Your task to perform on an android device: turn notification dots on Image 0: 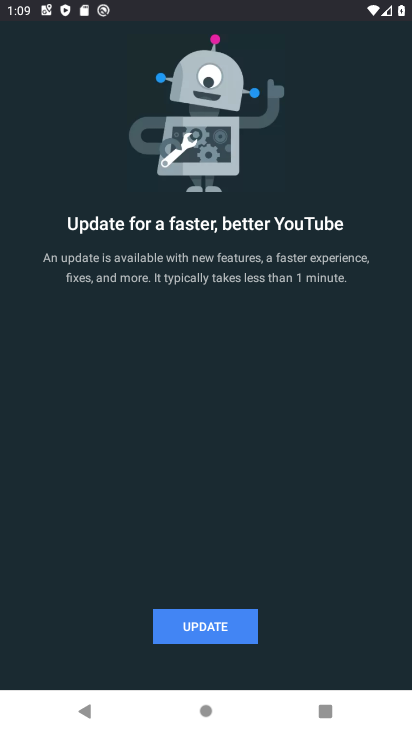
Step 0: press home button
Your task to perform on an android device: turn notification dots on Image 1: 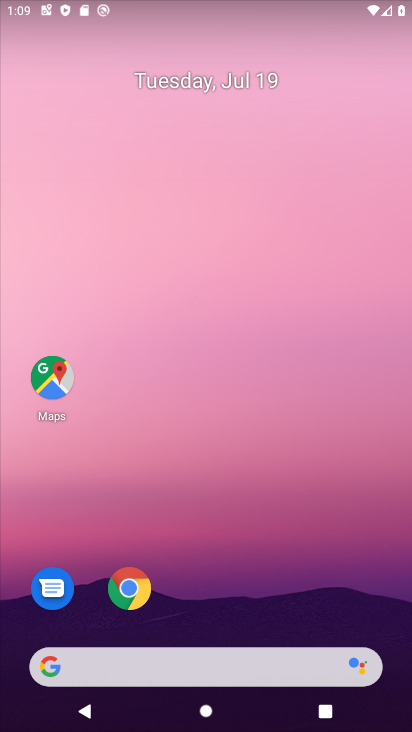
Step 1: drag from (33, 676) to (279, 188)
Your task to perform on an android device: turn notification dots on Image 2: 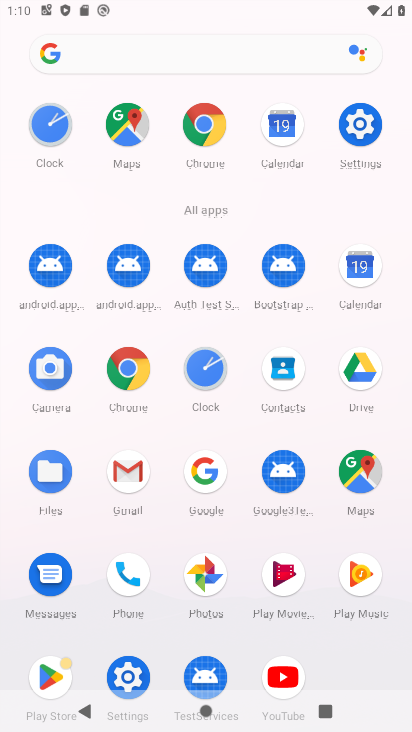
Step 2: click (124, 676)
Your task to perform on an android device: turn notification dots on Image 3: 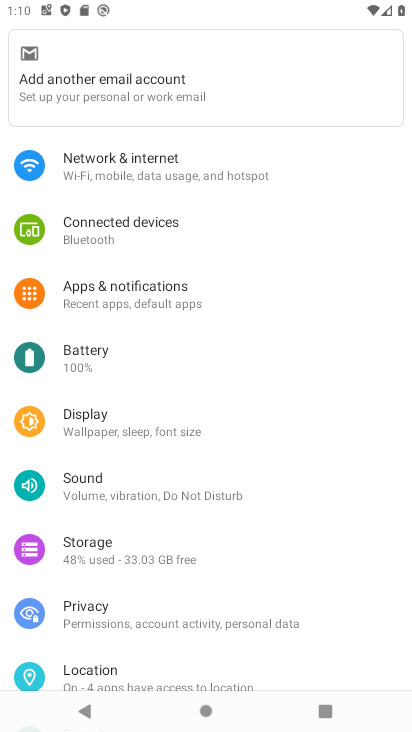
Step 3: click (144, 308)
Your task to perform on an android device: turn notification dots on Image 4: 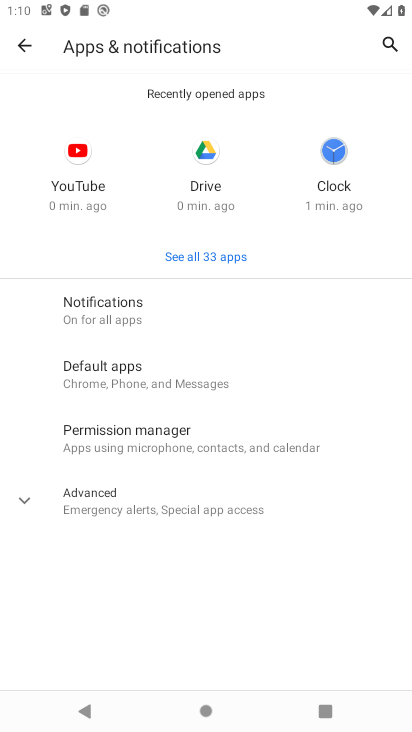
Step 4: click (95, 495)
Your task to perform on an android device: turn notification dots on Image 5: 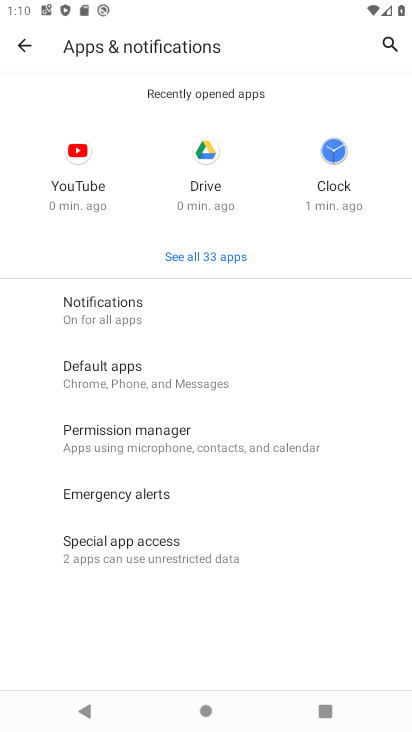
Step 5: click (170, 546)
Your task to perform on an android device: turn notification dots on Image 6: 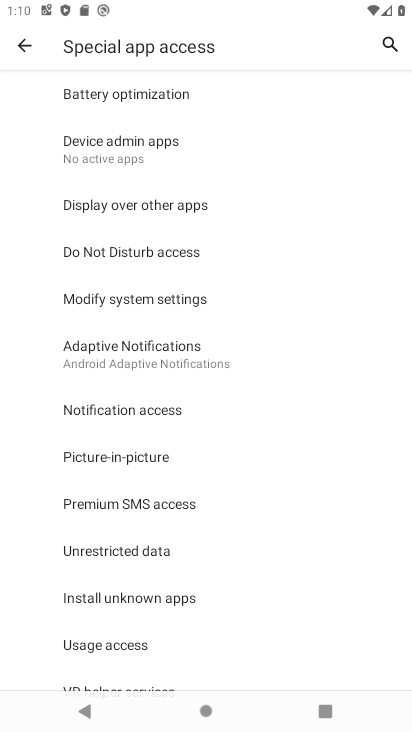
Step 6: click (25, 42)
Your task to perform on an android device: turn notification dots on Image 7: 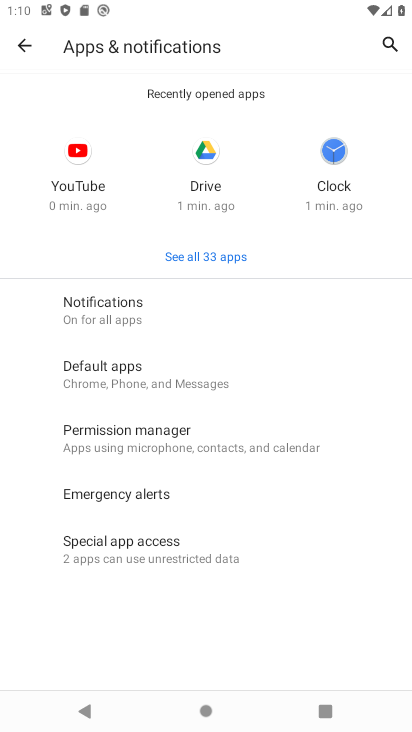
Step 7: click (111, 323)
Your task to perform on an android device: turn notification dots on Image 8: 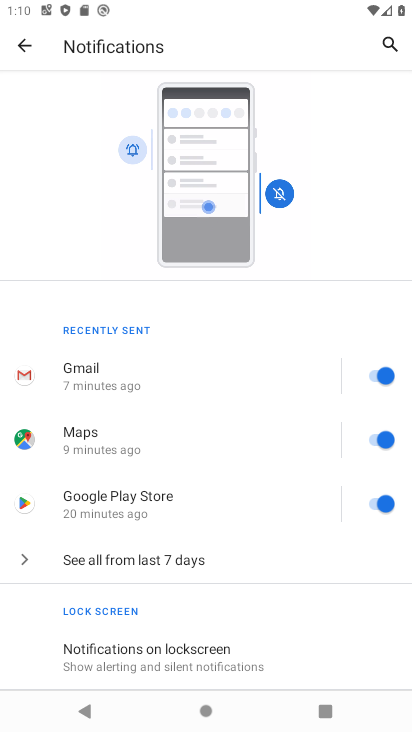
Step 8: drag from (267, 588) to (307, 334)
Your task to perform on an android device: turn notification dots on Image 9: 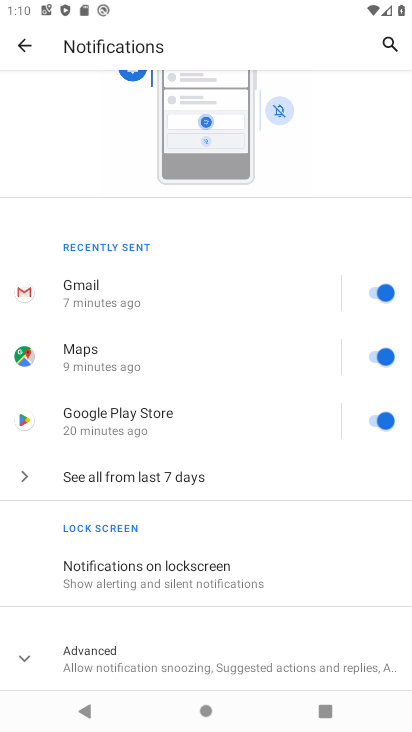
Step 9: click (102, 652)
Your task to perform on an android device: turn notification dots on Image 10: 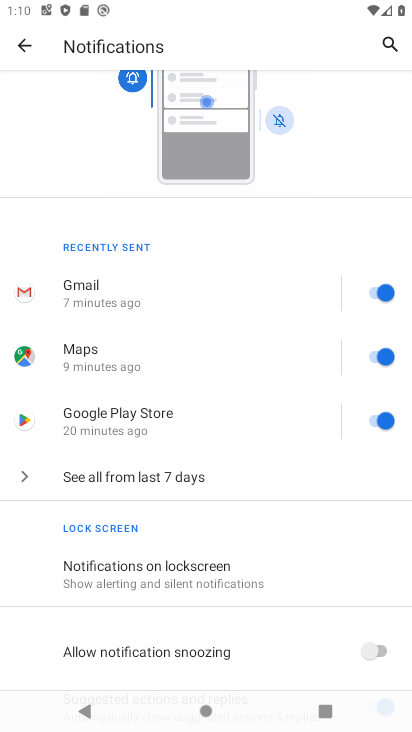
Step 10: task complete